Your task to perform on an android device: turn on airplane mode Image 0: 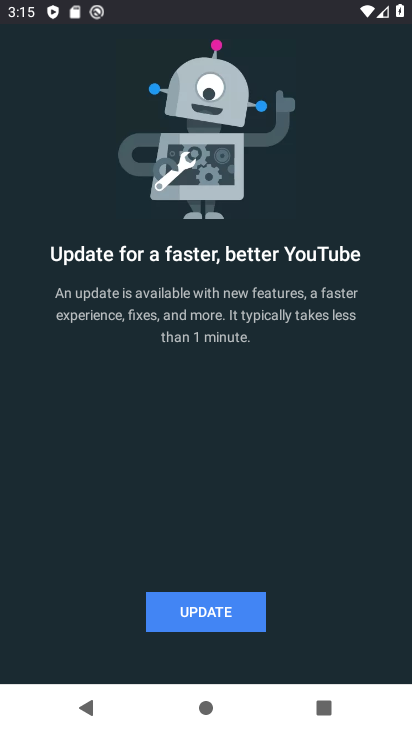
Step 0: press home button
Your task to perform on an android device: turn on airplane mode Image 1: 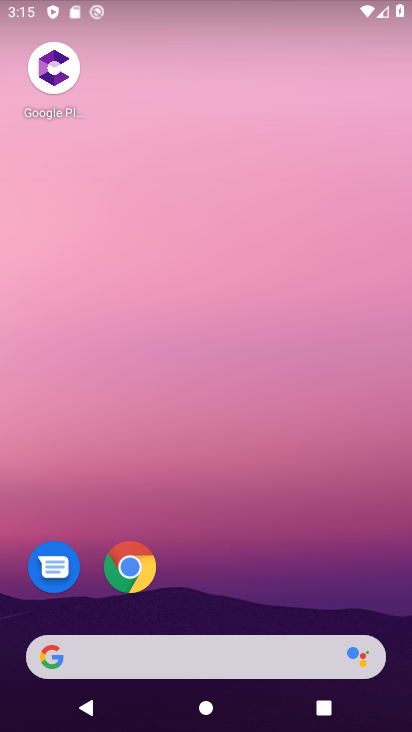
Step 1: drag from (294, 550) to (327, 108)
Your task to perform on an android device: turn on airplane mode Image 2: 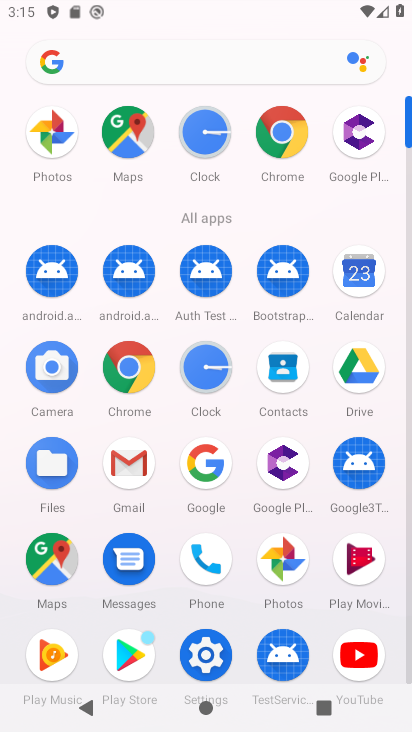
Step 2: click (223, 658)
Your task to perform on an android device: turn on airplane mode Image 3: 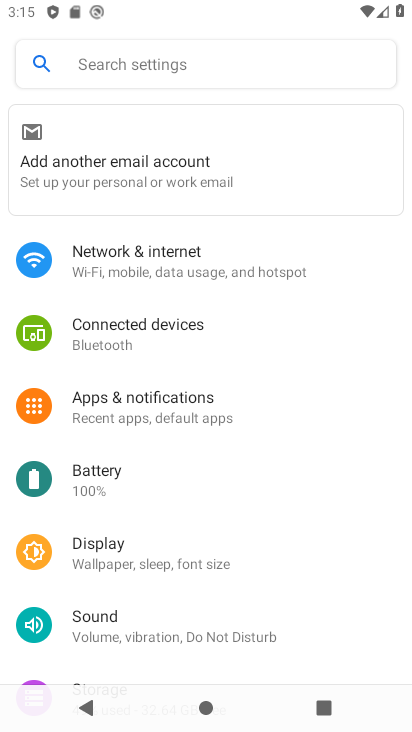
Step 3: click (137, 269)
Your task to perform on an android device: turn on airplane mode Image 4: 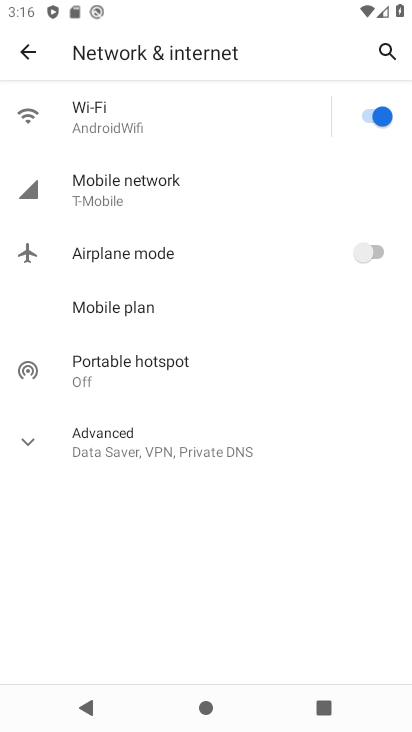
Step 4: click (372, 255)
Your task to perform on an android device: turn on airplane mode Image 5: 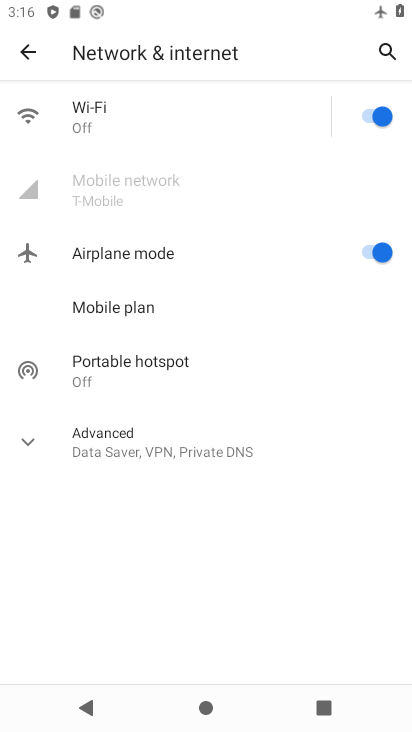
Step 5: task complete